Your task to perform on an android device: toggle data saver in the chrome app Image 0: 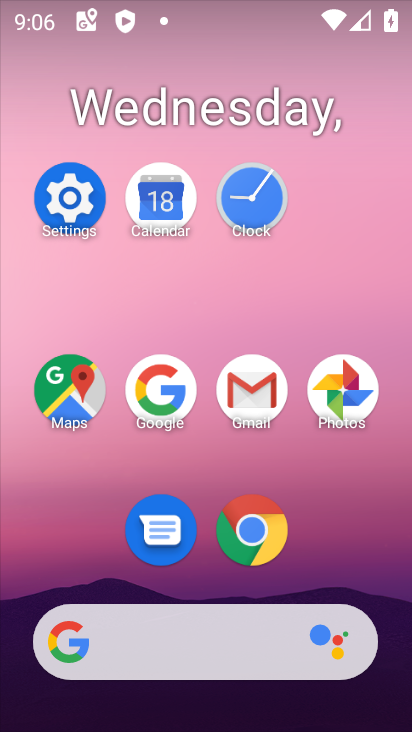
Step 0: click (276, 542)
Your task to perform on an android device: toggle data saver in the chrome app Image 1: 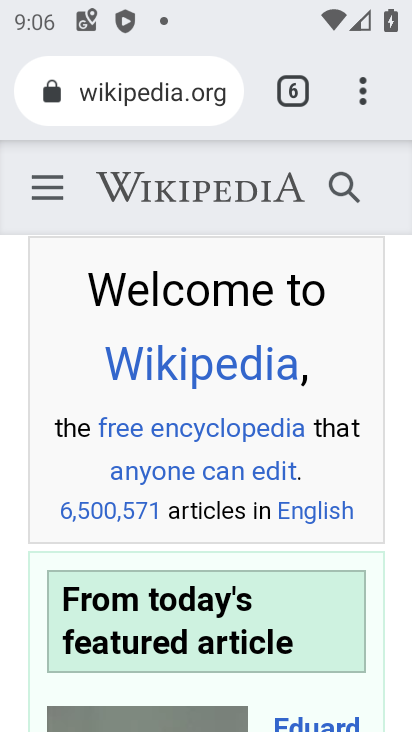
Step 1: click (371, 106)
Your task to perform on an android device: toggle data saver in the chrome app Image 2: 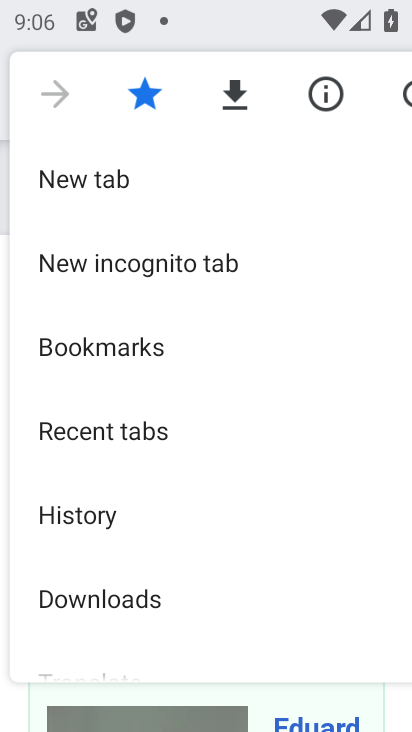
Step 2: drag from (234, 505) to (230, 149)
Your task to perform on an android device: toggle data saver in the chrome app Image 3: 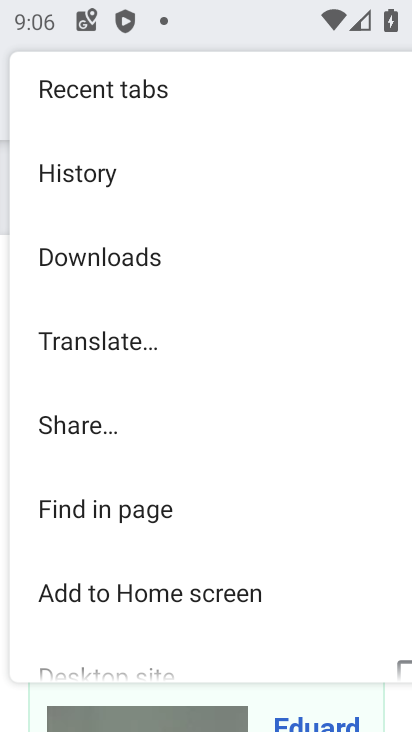
Step 3: drag from (172, 509) to (159, 189)
Your task to perform on an android device: toggle data saver in the chrome app Image 4: 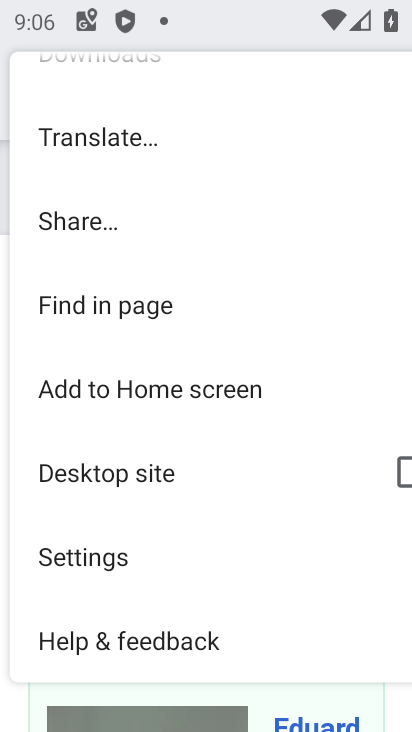
Step 4: click (83, 558)
Your task to perform on an android device: toggle data saver in the chrome app Image 5: 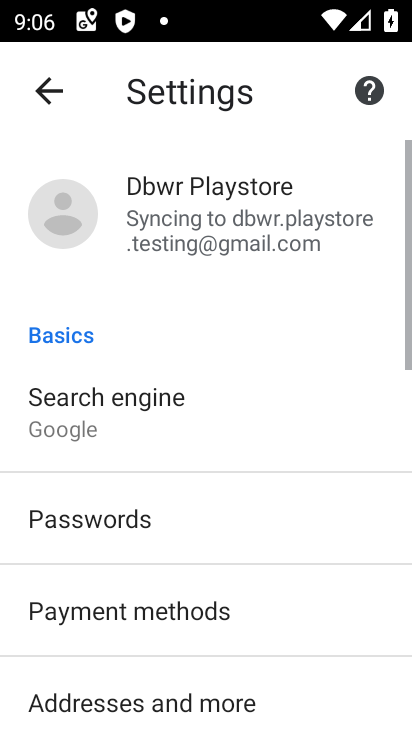
Step 5: drag from (201, 593) to (261, 206)
Your task to perform on an android device: toggle data saver in the chrome app Image 6: 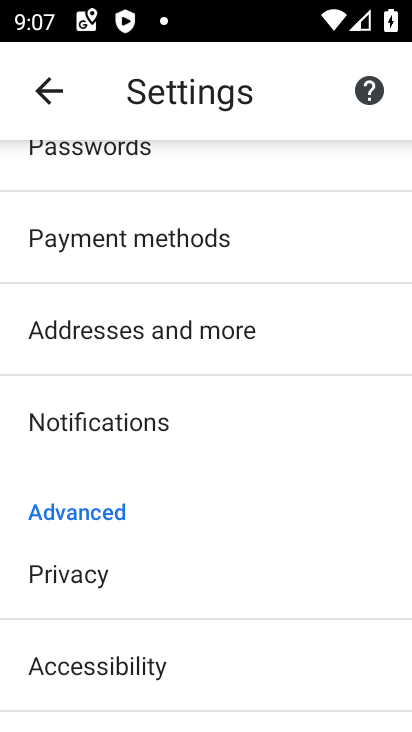
Step 6: drag from (247, 613) to (273, 219)
Your task to perform on an android device: toggle data saver in the chrome app Image 7: 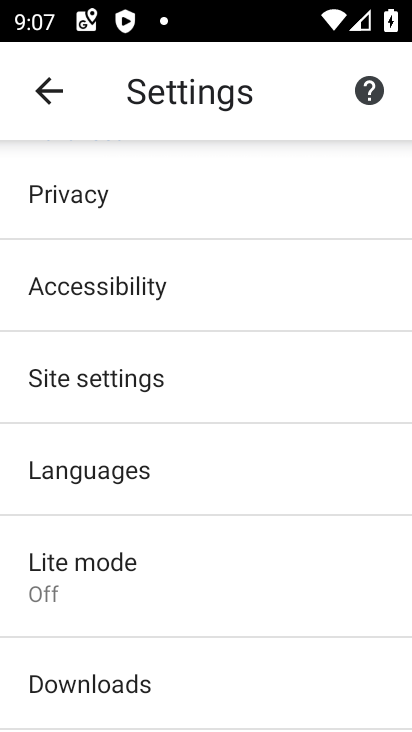
Step 7: drag from (230, 558) to (239, 278)
Your task to perform on an android device: toggle data saver in the chrome app Image 8: 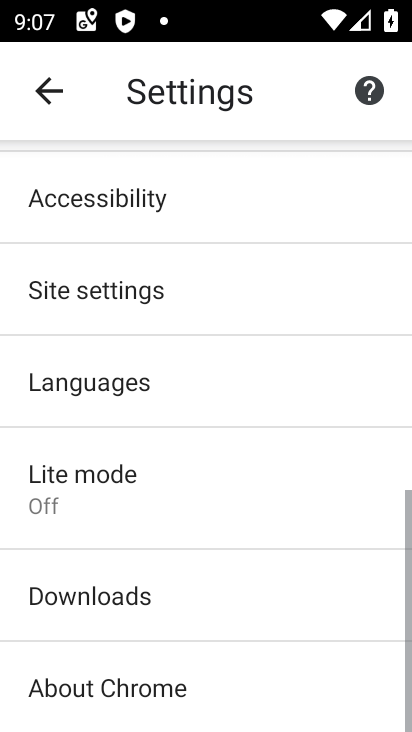
Step 8: click (189, 446)
Your task to perform on an android device: toggle data saver in the chrome app Image 9: 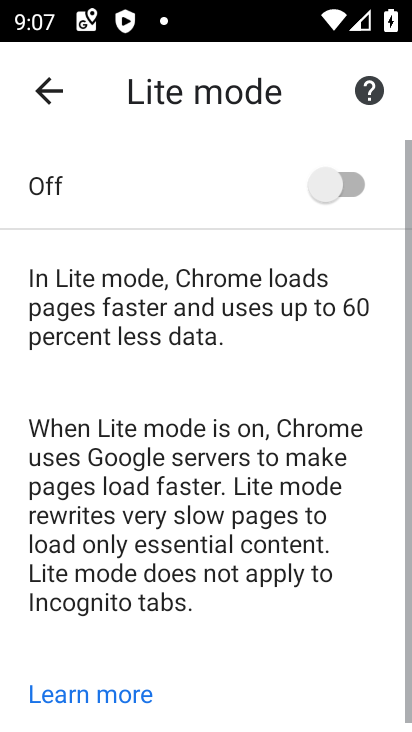
Step 9: click (347, 188)
Your task to perform on an android device: toggle data saver in the chrome app Image 10: 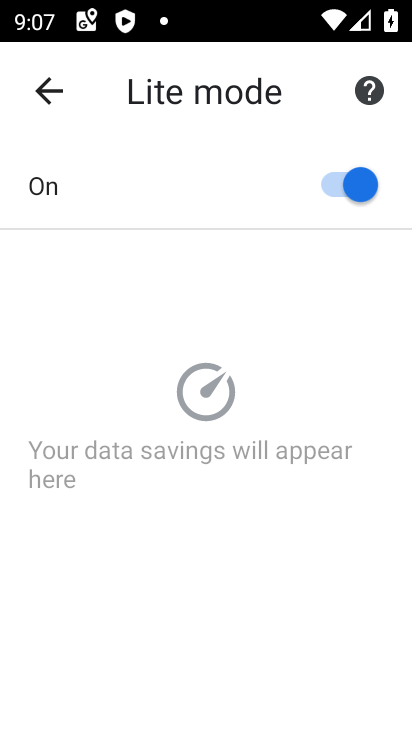
Step 10: task complete